Your task to perform on an android device: Search for "rayovac triple a" on newegg, select the first entry, add it to the cart, then select checkout. Image 0: 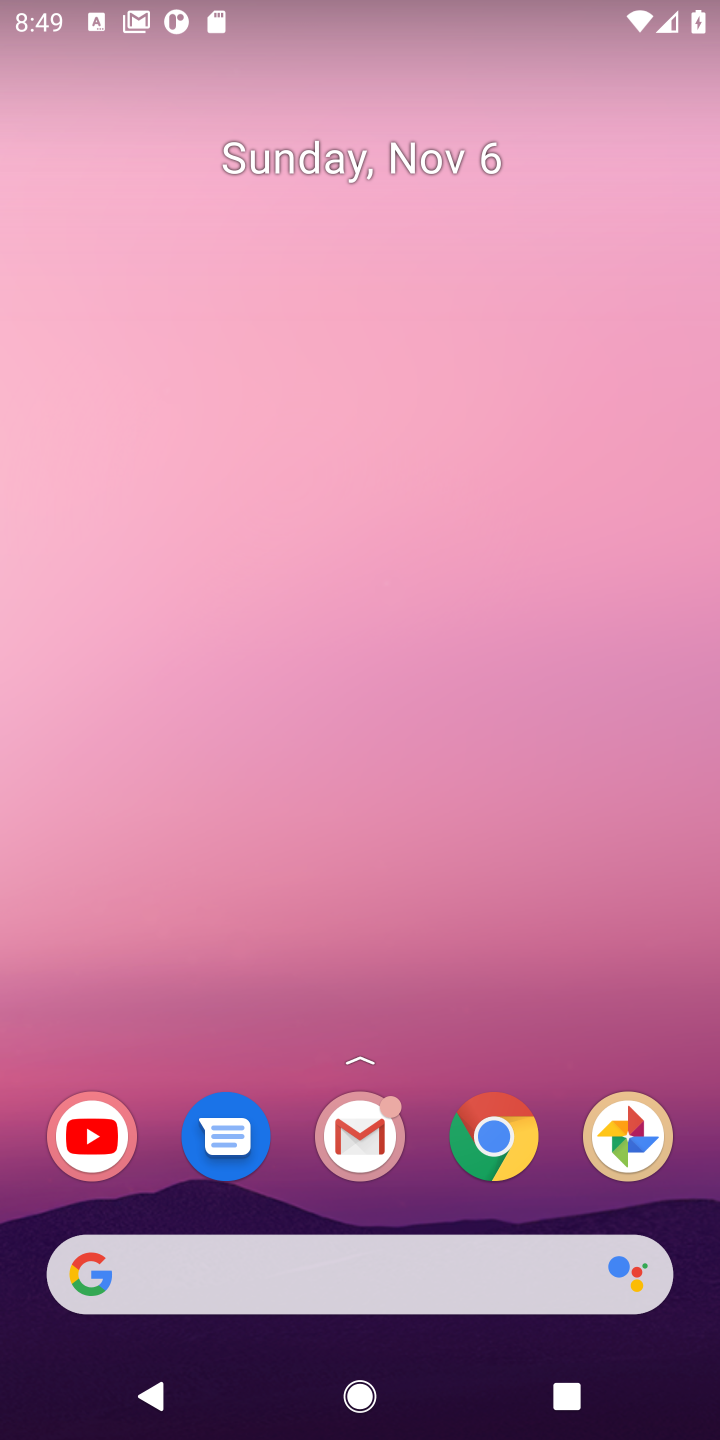
Step 0: click (156, 1287)
Your task to perform on an android device: Search for "rayovac triple a" on newegg, select the first entry, add it to the cart, then select checkout. Image 1: 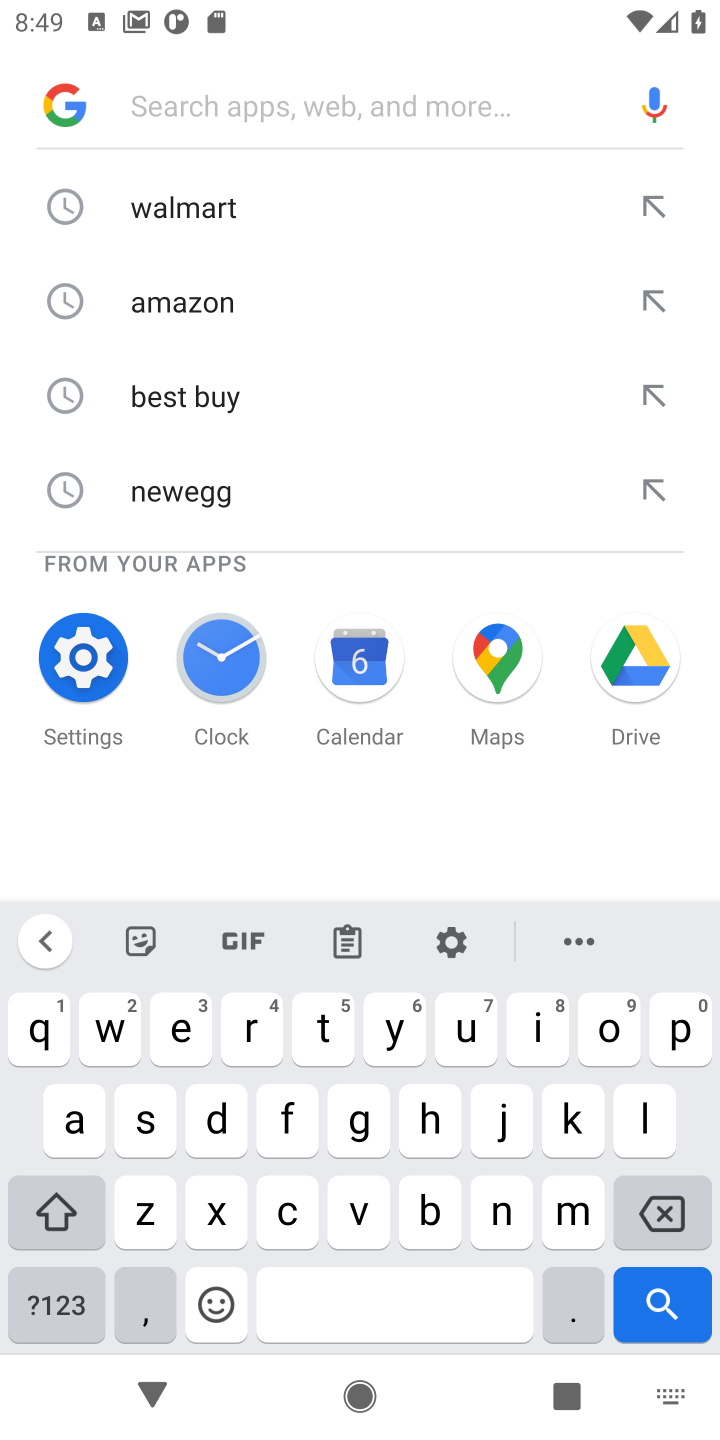
Step 1: type "newegg"
Your task to perform on an android device: Search for "rayovac triple a" on newegg, select the first entry, add it to the cart, then select checkout. Image 2: 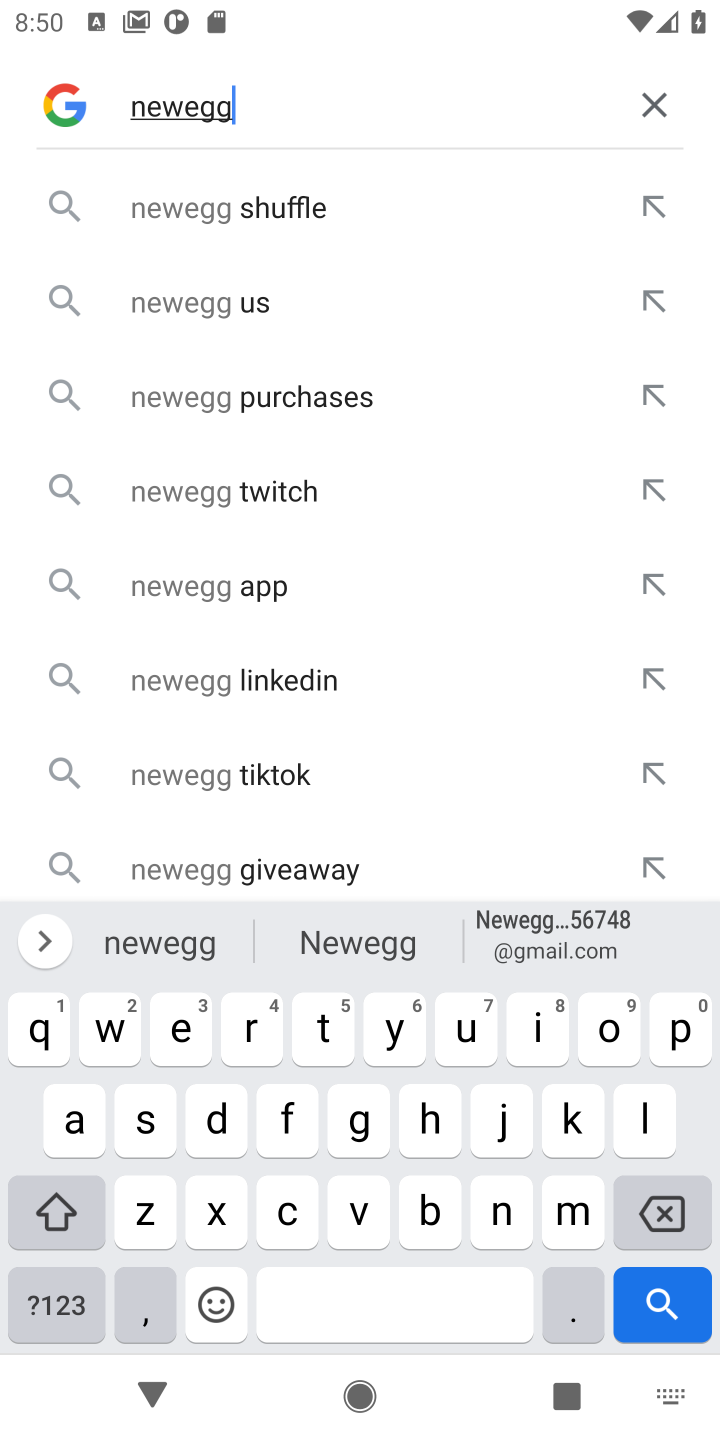
Step 2: task complete